Your task to perform on an android device: check google app version Image 0: 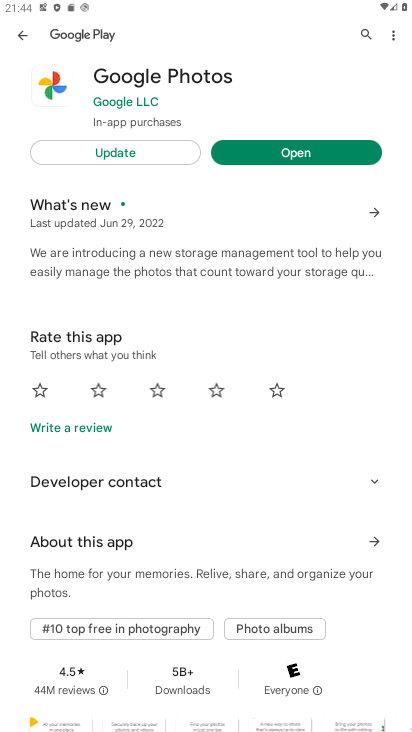
Step 0: press home button
Your task to perform on an android device: check google app version Image 1: 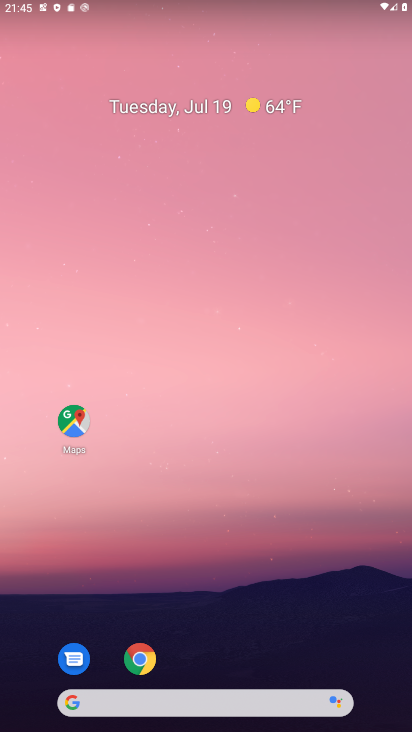
Step 1: drag from (251, 662) to (222, 64)
Your task to perform on an android device: check google app version Image 2: 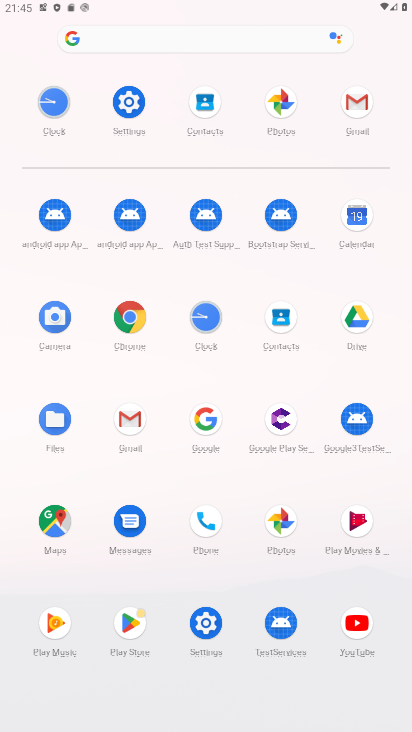
Step 2: click (210, 417)
Your task to perform on an android device: check google app version Image 3: 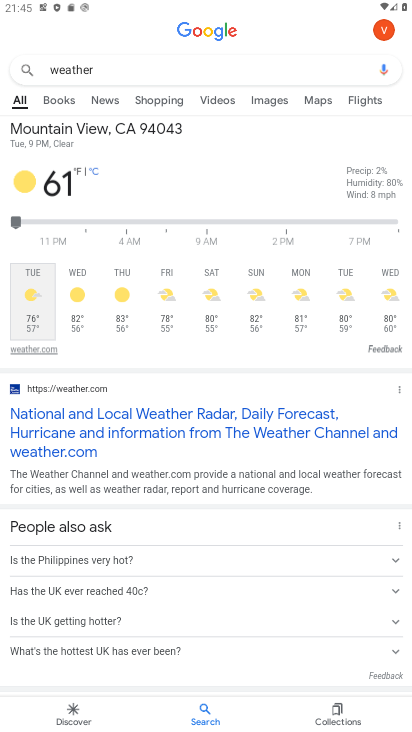
Step 3: click (376, 23)
Your task to perform on an android device: check google app version Image 4: 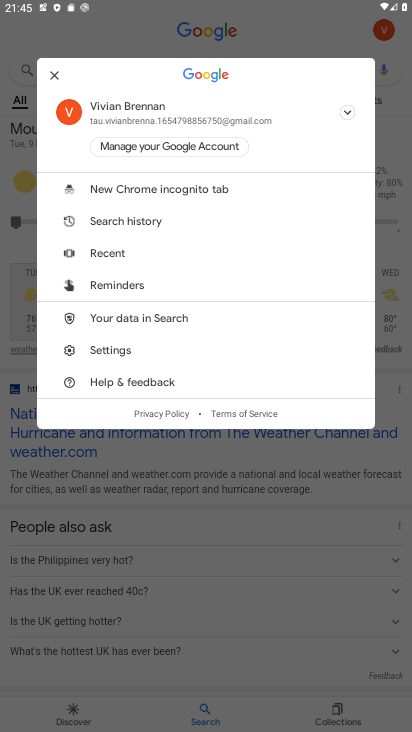
Step 4: click (142, 343)
Your task to perform on an android device: check google app version Image 5: 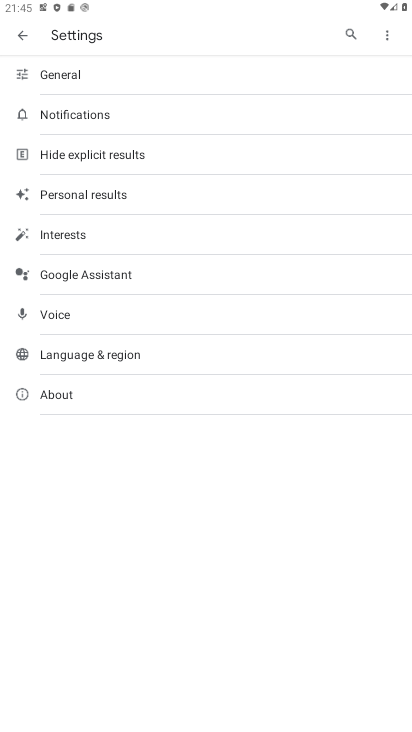
Step 5: click (98, 384)
Your task to perform on an android device: check google app version Image 6: 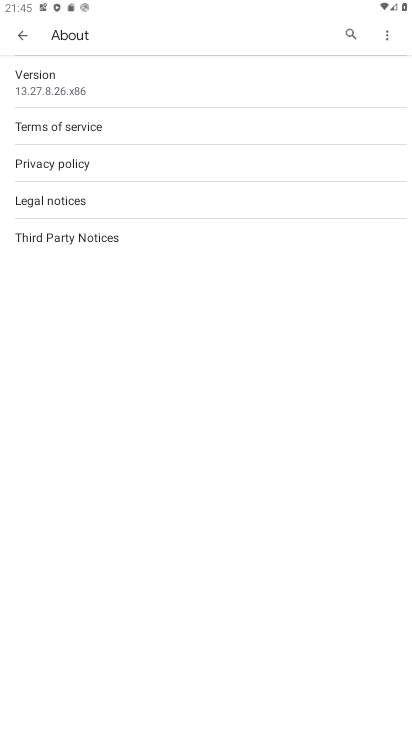
Step 6: click (131, 91)
Your task to perform on an android device: check google app version Image 7: 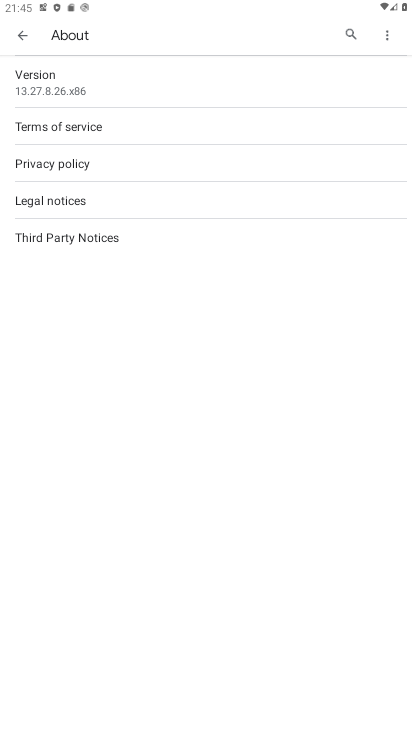
Step 7: task complete